Your task to perform on an android device: Go to calendar. Show me events next week Image 0: 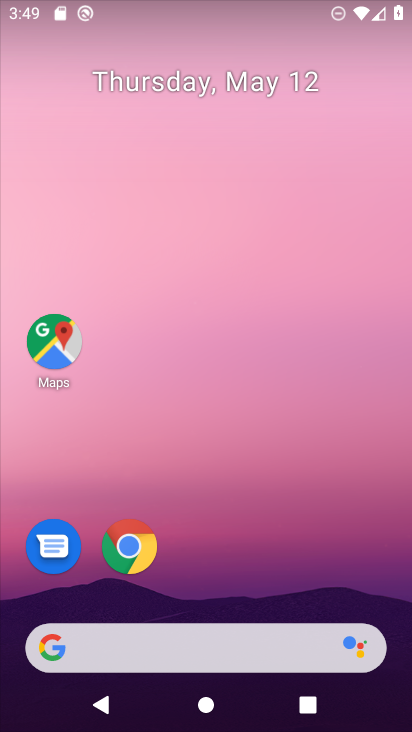
Step 0: drag from (251, 599) to (299, 234)
Your task to perform on an android device: Go to calendar. Show me events next week Image 1: 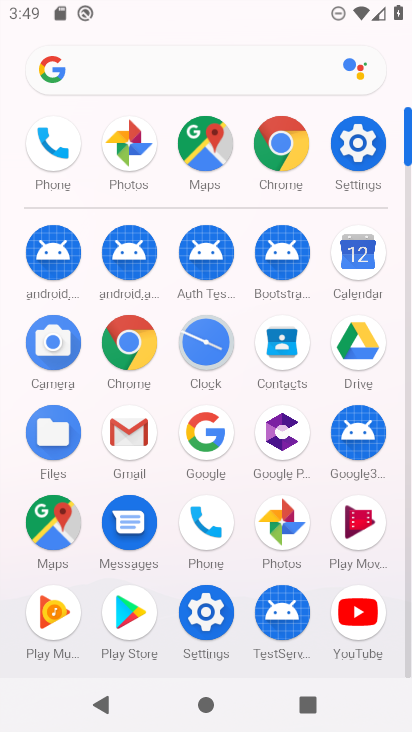
Step 1: click (362, 247)
Your task to perform on an android device: Go to calendar. Show me events next week Image 2: 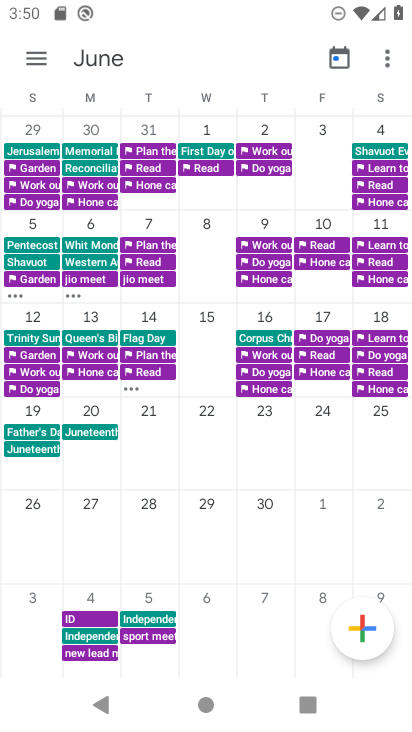
Step 2: drag from (56, 250) to (409, 272)
Your task to perform on an android device: Go to calendar. Show me events next week Image 3: 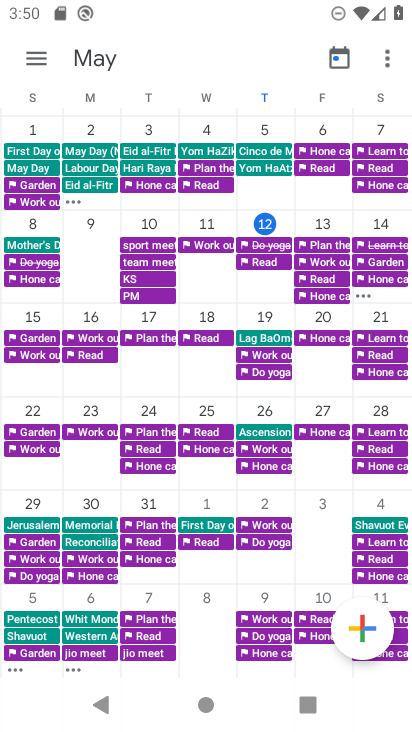
Step 3: click (32, 54)
Your task to perform on an android device: Go to calendar. Show me events next week Image 4: 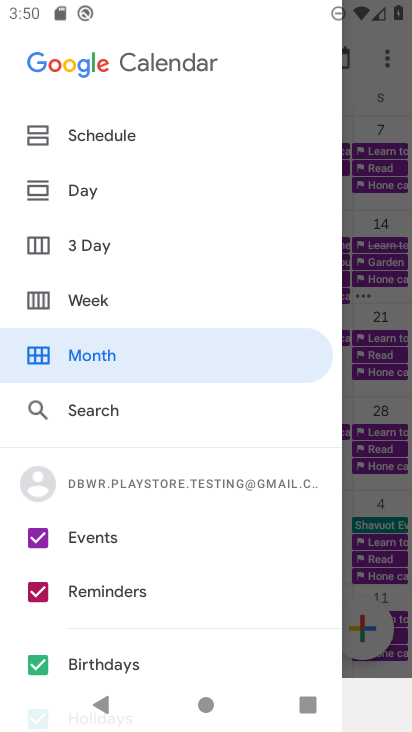
Step 4: click (101, 290)
Your task to perform on an android device: Go to calendar. Show me events next week Image 5: 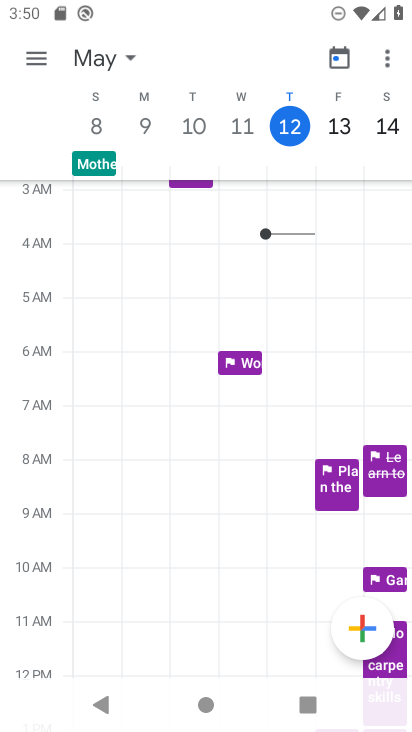
Step 5: task complete